Your task to perform on an android device: check the backup settings in the google photos Image 0: 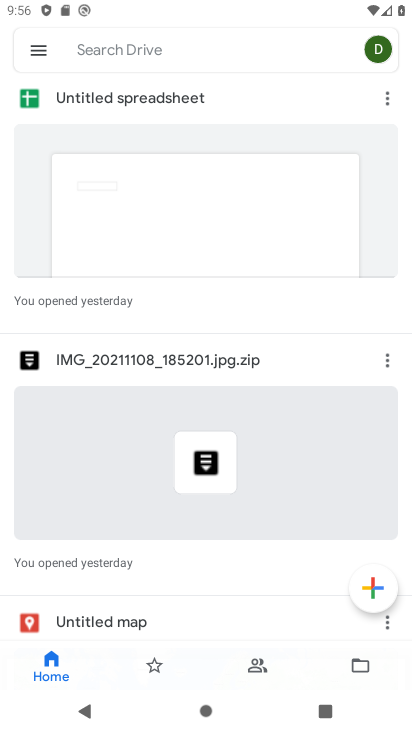
Step 0: press home button
Your task to perform on an android device: check the backup settings in the google photos Image 1: 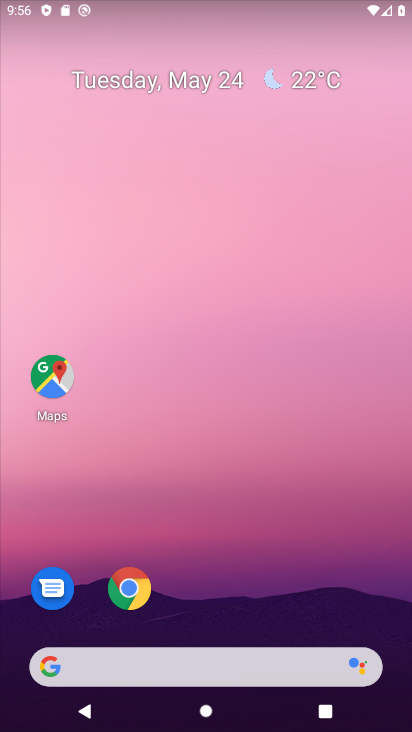
Step 1: drag from (225, 623) to (248, 104)
Your task to perform on an android device: check the backup settings in the google photos Image 2: 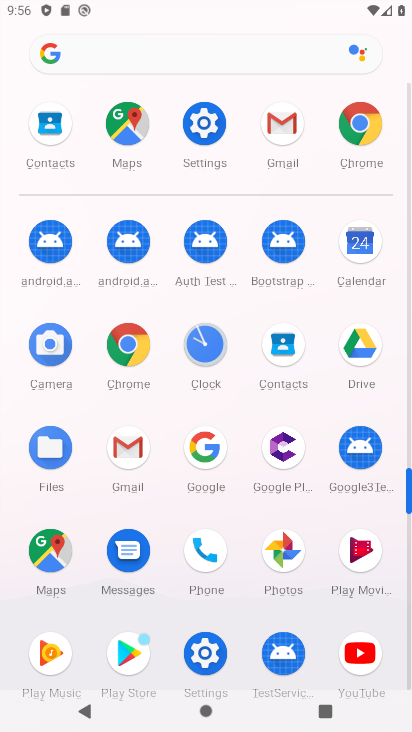
Step 2: click (293, 548)
Your task to perform on an android device: check the backup settings in the google photos Image 3: 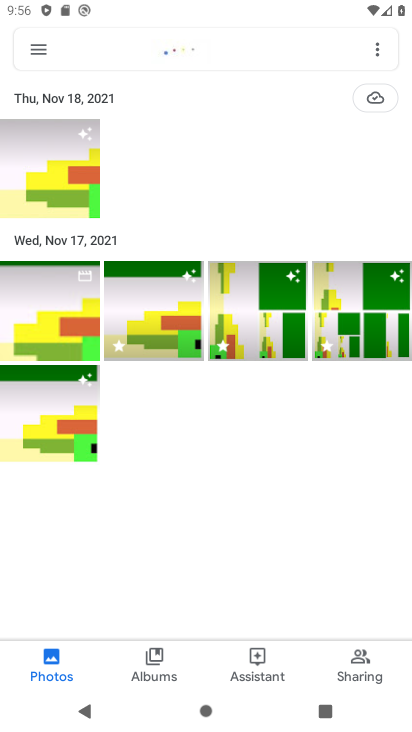
Step 3: click (34, 41)
Your task to perform on an android device: check the backup settings in the google photos Image 4: 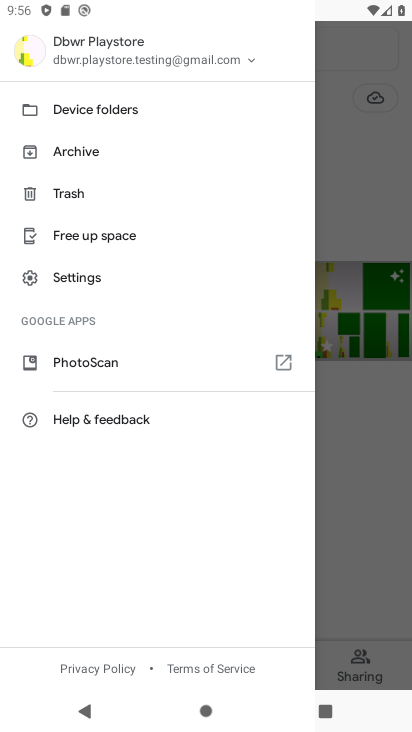
Step 4: click (101, 282)
Your task to perform on an android device: check the backup settings in the google photos Image 5: 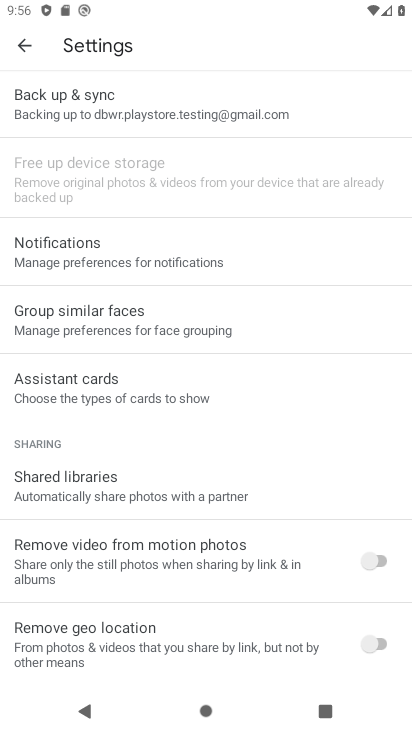
Step 5: click (163, 105)
Your task to perform on an android device: check the backup settings in the google photos Image 6: 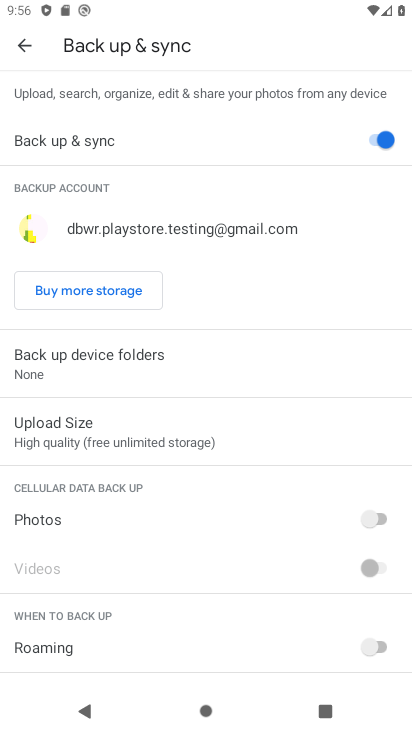
Step 6: click (155, 428)
Your task to perform on an android device: check the backup settings in the google photos Image 7: 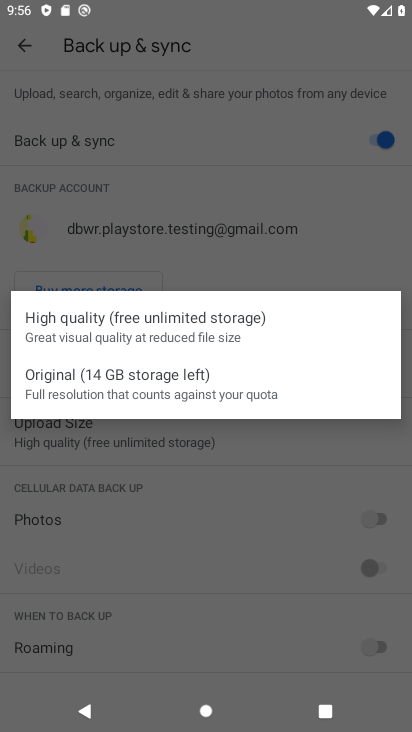
Step 7: click (174, 391)
Your task to perform on an android device: check the backup settings in the google photos Image 8: 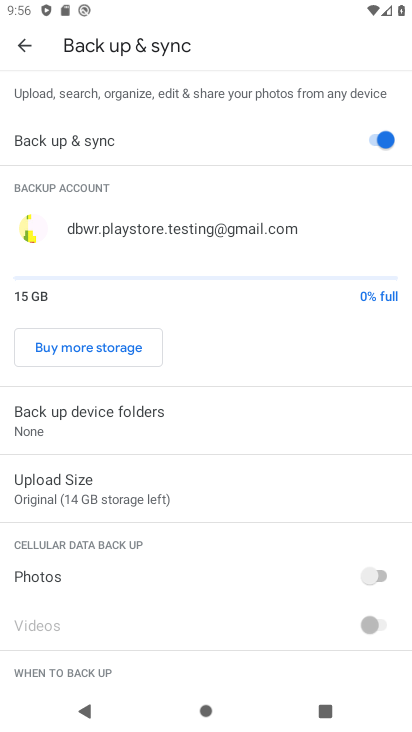
Step 8: task complete